Your task to perform on an android device: change the clock display to analog Image 0: 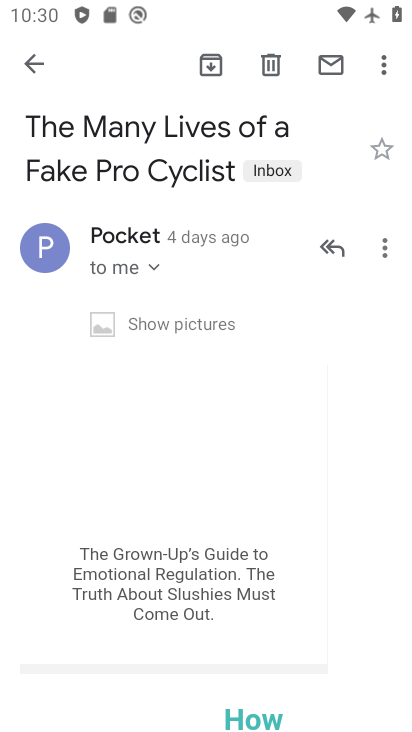
Step 0: press back button
Your task to perform on an android device: change the clock display to analog Image 1: 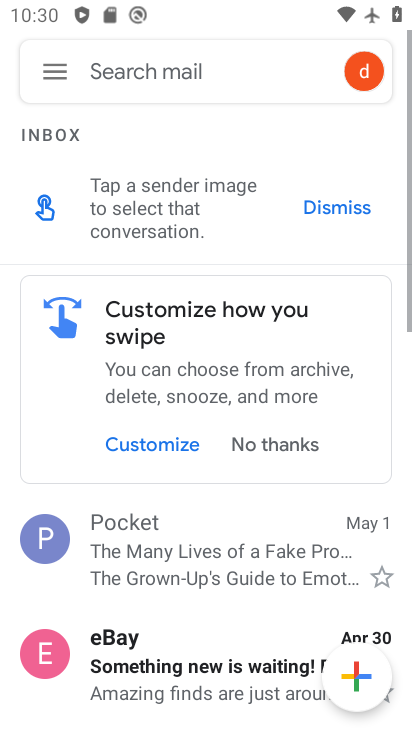
Step 1: press back button
Your task to perform on an android device: change the clock display to analog Image 2: 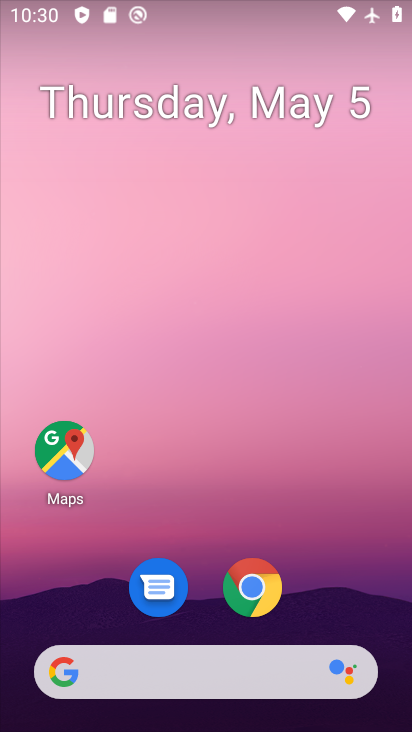
Step 2: drag from (346, 523) to (323, 26)
Your task to perform on an android device: change the clock display to analog Image 3: 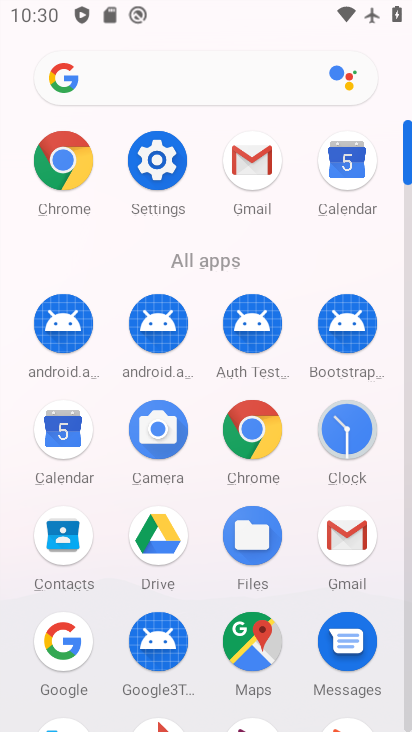
Step 3: drag from (12, 549) to (9, 205)
Your task to perform on an android device: change the clock display to analog Image 4: 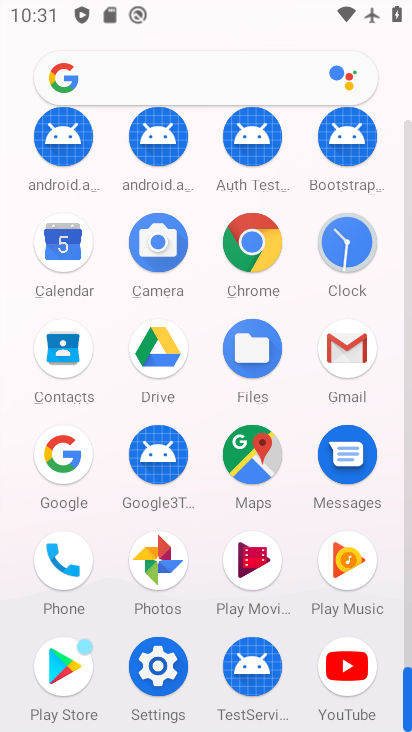
Step 4: click (344, 233)
Your task to perform on an android device: change the clock display to analog Image 5: 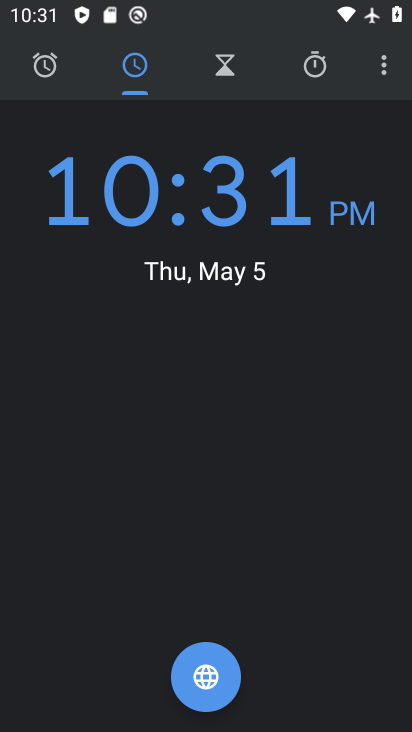
Step 5: drag from (385, 66) to (273, 127)
Your task to perform on an android device: change the clock display to analog Image 6: 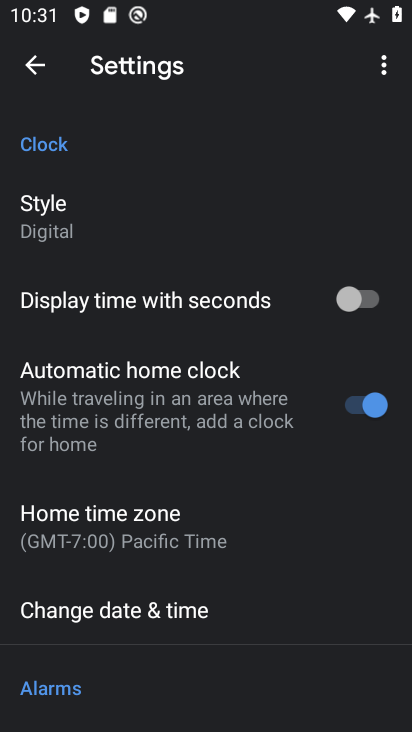
Step 6: drag from (180, 455) to (196, 156)
Your task to perform on an android device: change the clock display to analog Image 7: 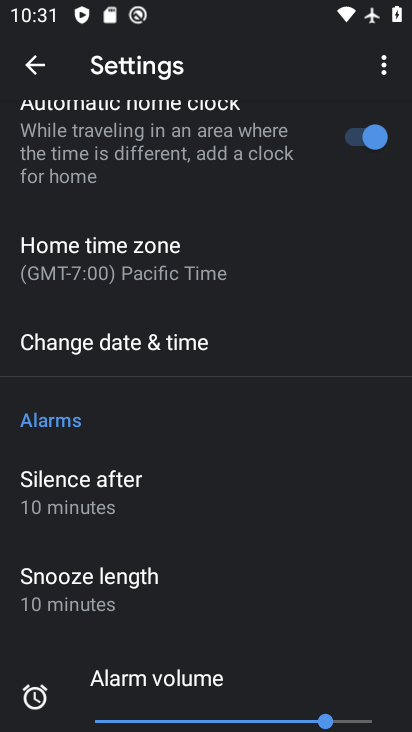
Step 7: drag from (188, 542) to (197, 132)
Your task to perform on an android device: change the clock display to analog Image 8: 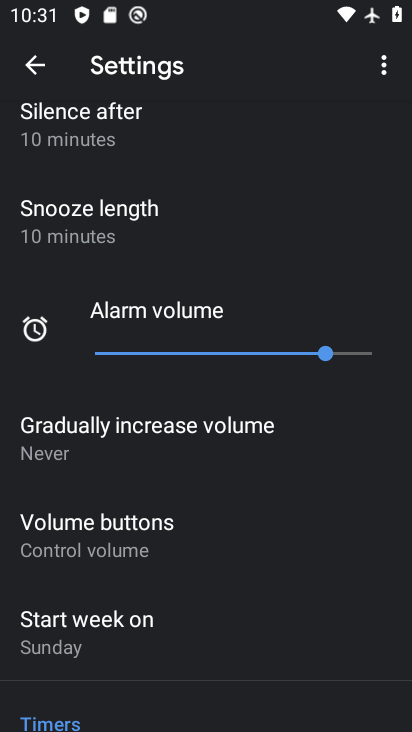
Step 8: drag from (222, 210) to (238, 550)
Your task to perform on an android device: change the clock display to analog Image 9: 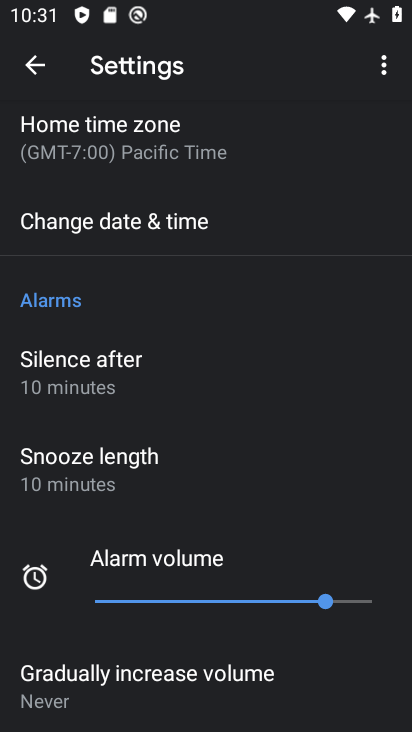
Step 9: drag from (213, 166) to (213, 528)
Your task to perform on an android device: change the clock display to analog Image 10: 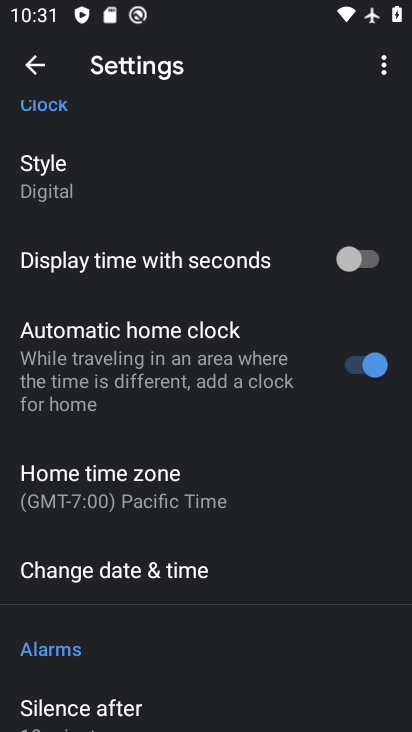
Step 10: click (103, 180)
Your task to perform on an android device: change the clock display to analog Image 11: 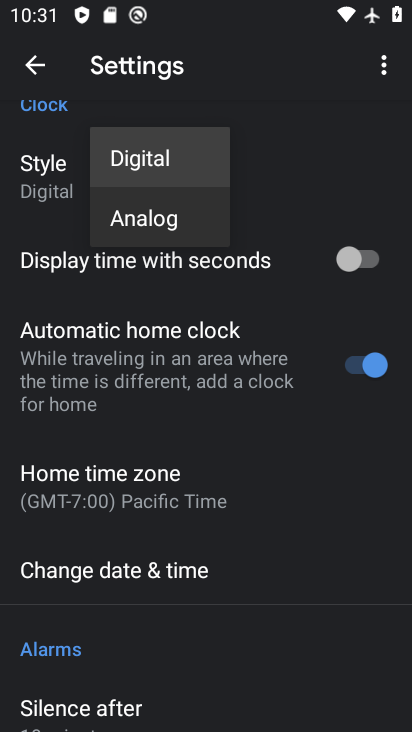
Step 11: click (124, 230)
Your task to perform on an android device: change the clock display to analog Image 12: 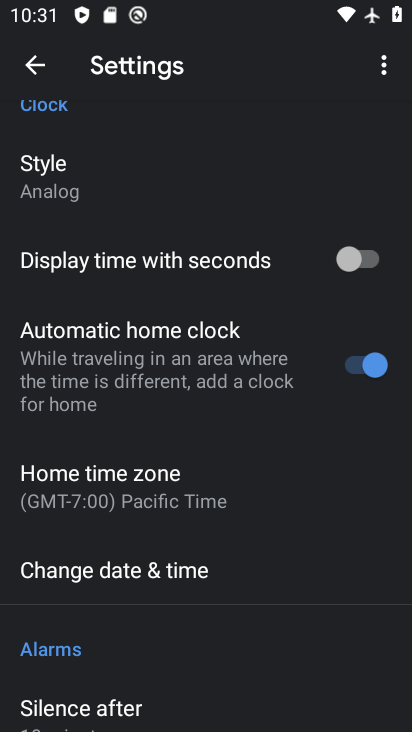
Step 12: task complete